Your task to perform on an android device: turn on improve location accuracy Image 0: 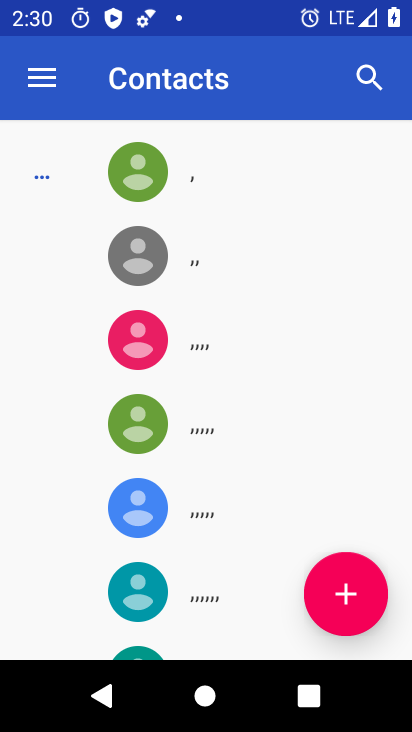
Step 0: press home button
Your task to perform on an android device: turn on improve location accuracy Image 1: 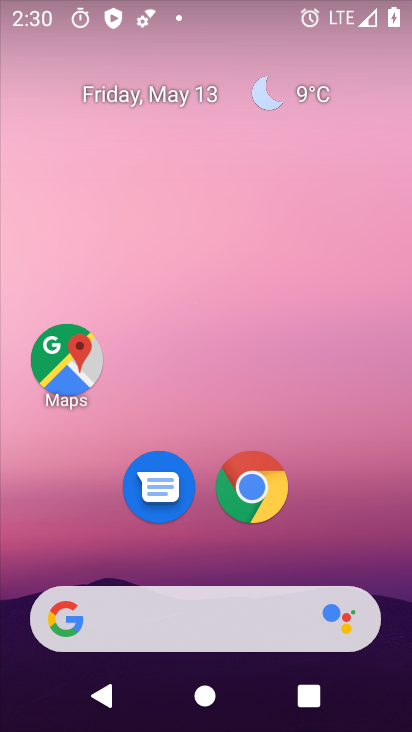
Step 1: drag from (198, 551) to (264, 112)
Your task to perform on an android device: turn on improve location accuracy Image 2: 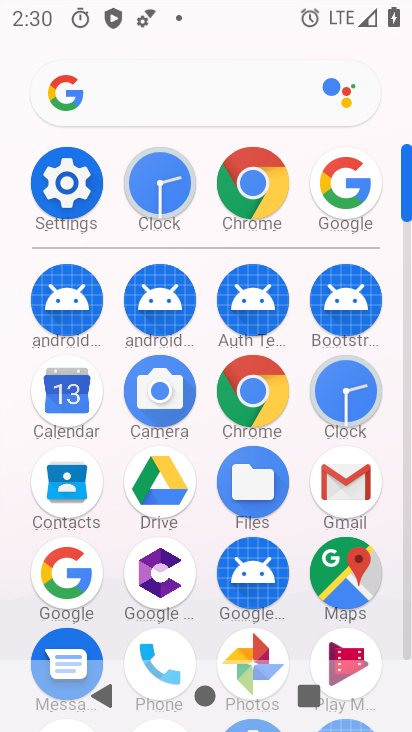
Step 2: click (69, 179)
Your task to perform on an android device: turn on improve location accuracy Image 3: 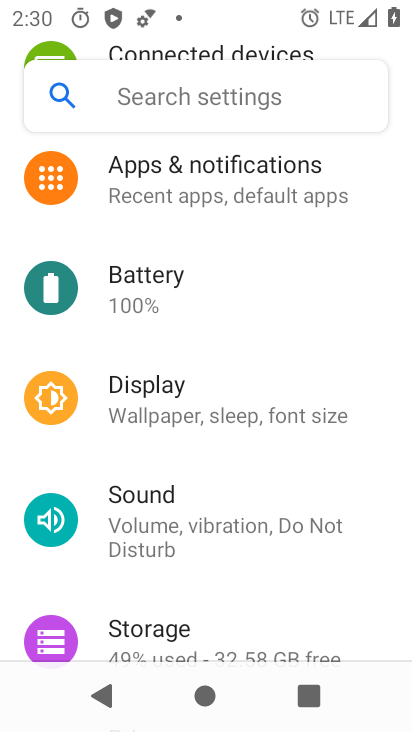
Step 3: drag from (187, 577) to (269, 143)
Your task to perform on an android device: turn on improve location accuracy Image 4: 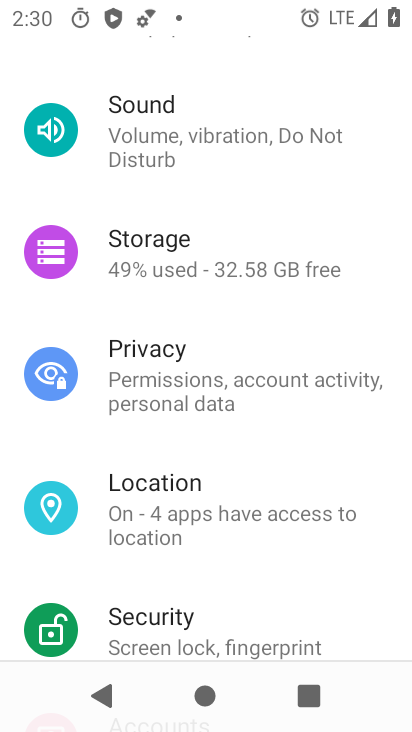
Step 4: click (164, 500)
Your task to perform on an android device: turn on improve location accuracy Image 5: 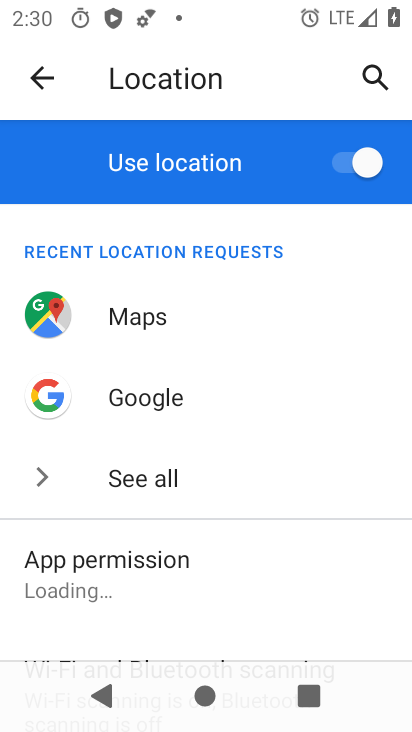
Step 5: drag from (276, 607) to (281, 190)
Your task to perform on an android device: turn on improve location accuracy Image 6: 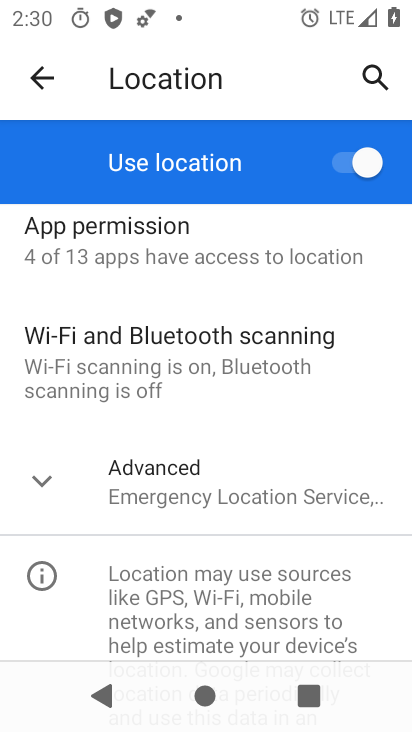
Step 6: click (164, 484)
Your task to perform on an android device: turn on improve location accuracy Image 7: 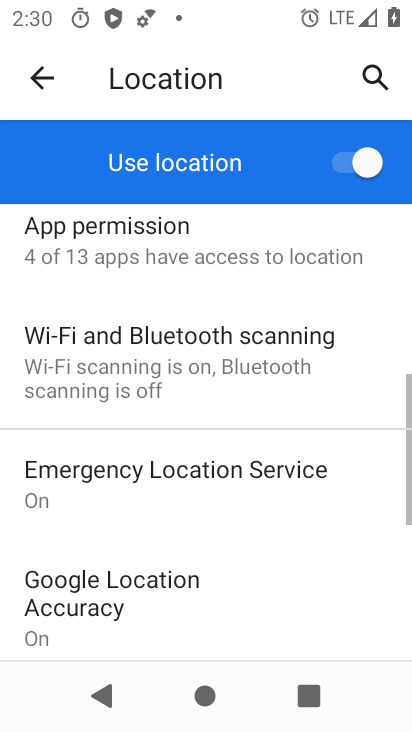
Step 7: drag from (297, 522) to (309, 339)
Your task to perform on an android device: turn on improve location accuracy Image 8: 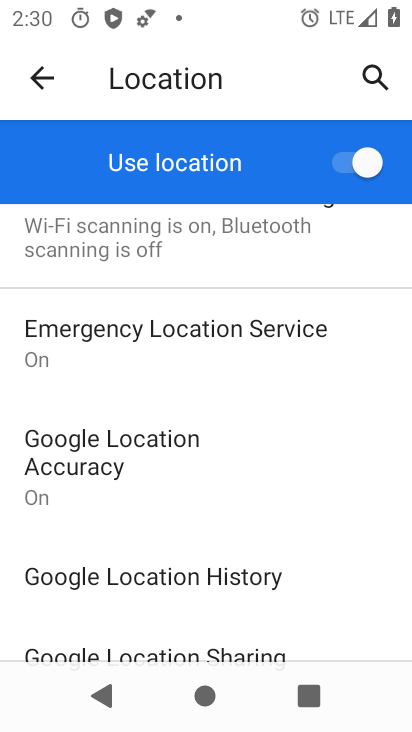
Step 8: click (133, 461)
Your task to perform on an android device: turn on improve location accuracy Image 9: 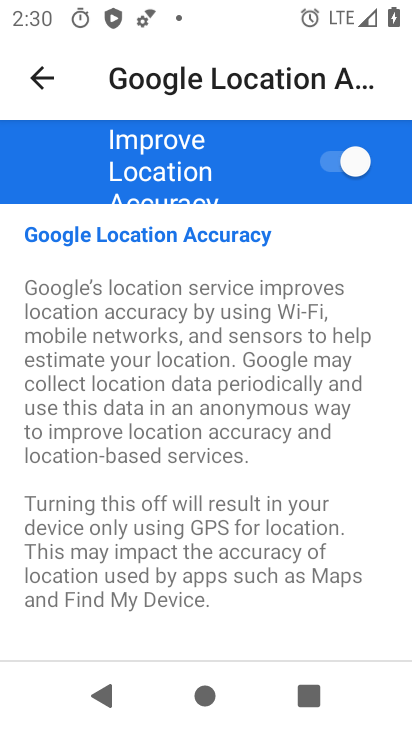
Step 9: task complete